Your task to perform on an android device: see sites visited before in the chrome app Image 0: 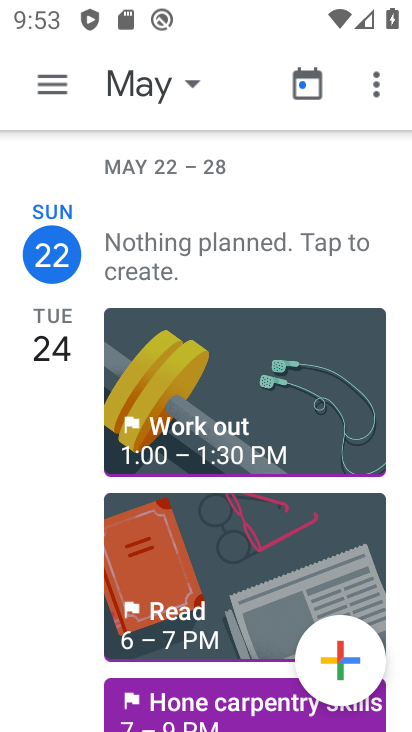
Step 0: press home button
Your task to perform on an android device: see sites visited before in the chrome app Image 1: 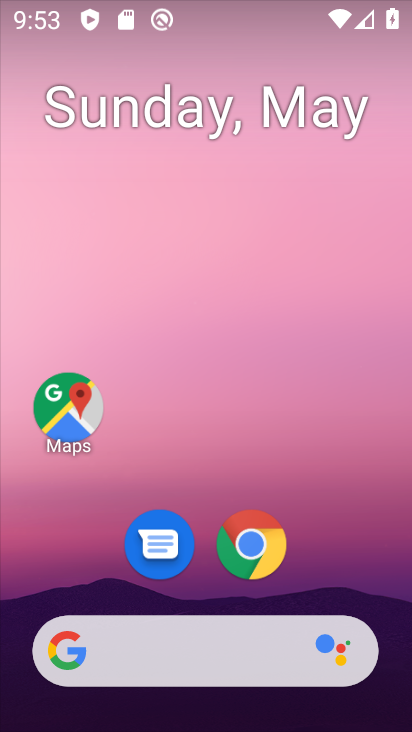
Step 1: click (239, 546)
Your task to perform on an android device: see sites visited before in the chrome app Image 2: 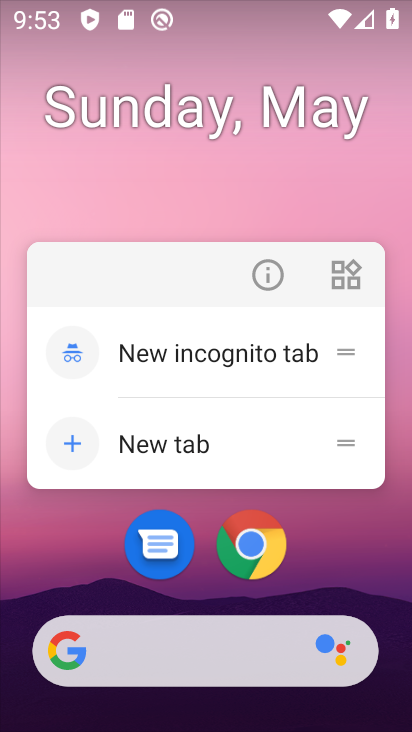
Step 2: click (239, 548)
Your task to perform on an android device: see sites visited before in the chrome app Image 3: 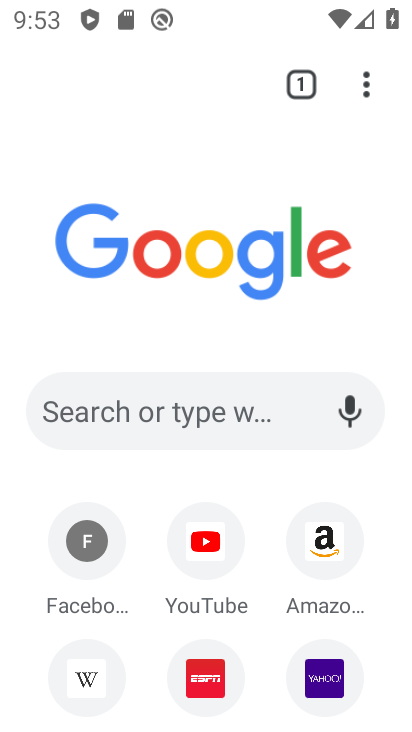
Step 3: click (371, 75)
Your task to perform on an android device: see sites visited before in the chrome app Image 4: 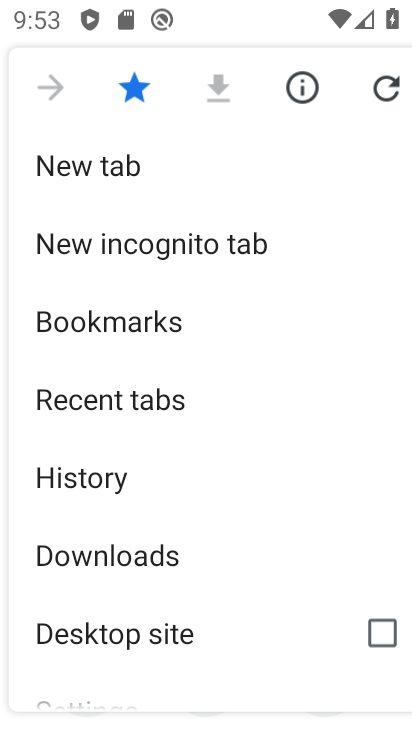
Step 4: click (105, 470)
Your task to perform on an android device: see sites visited before in the chrome app Image 5: 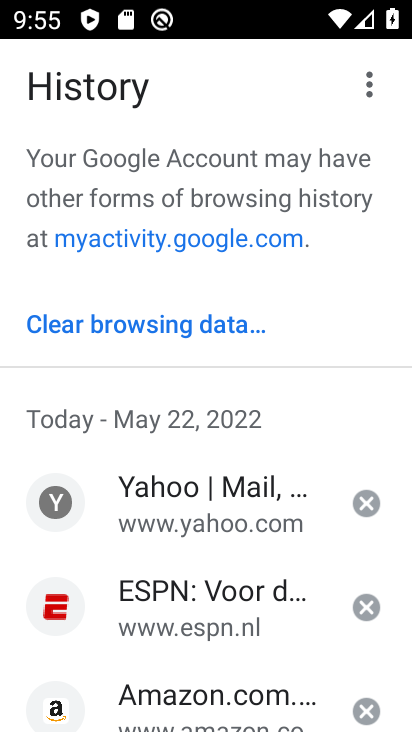
Step 5: task complete